Your task to perform on an android device: Open internet settings Image 0: 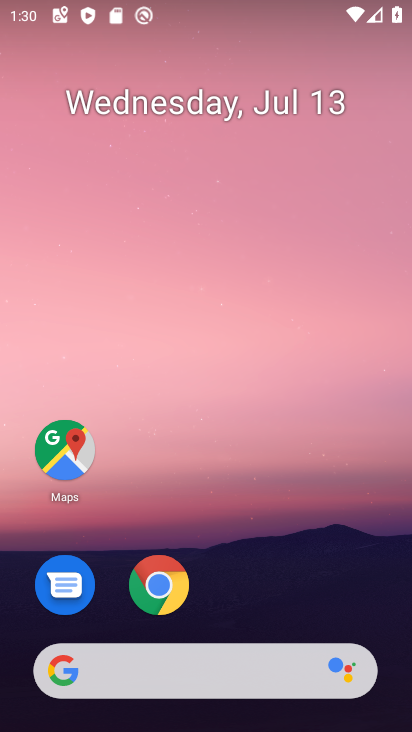
Step 0: drag from (225, 684) to (330, 242)
Your task to perform on an android device: Open internet settings Image 1: 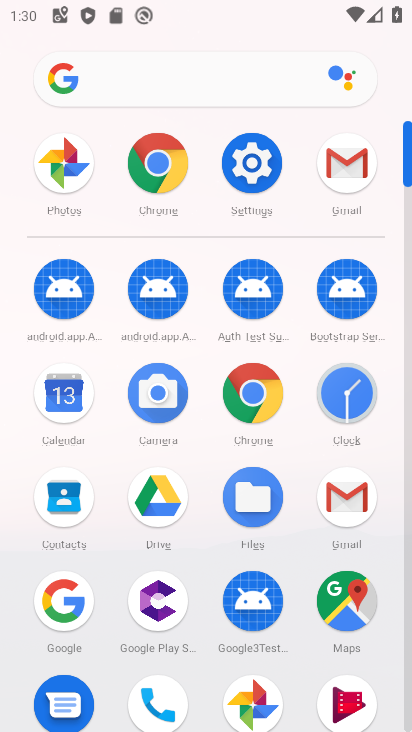
Step 1: click (255, 175)
Your task to perform on an android device: Open internet settings Image 2: 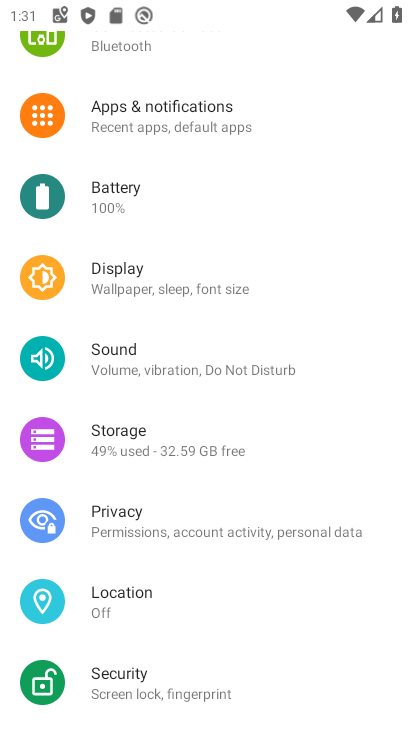
Step 2: drag from (240, 152) to (145, 540)
Your task to perform on an android device: Open internet settings Image 3: 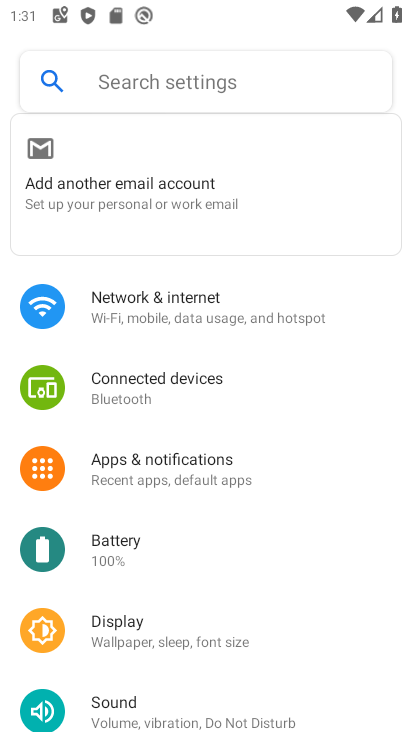
Step 3: click (165, 291)
Your task to perform on an android device: Open internet settings Image 4: 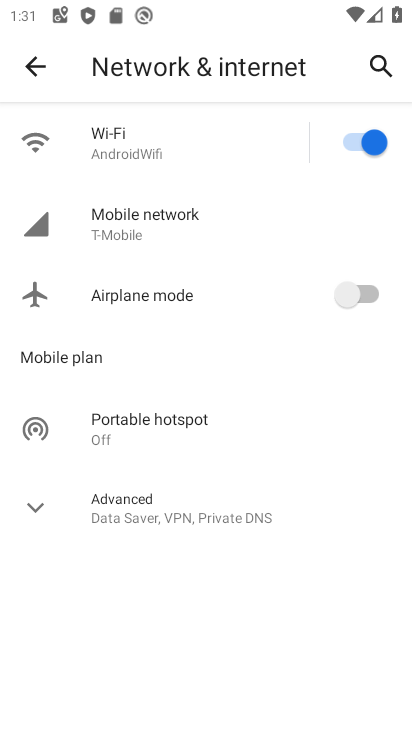
Step 4: task complete